Your task to perform on an android device: create a new album in the google photos Image 0: 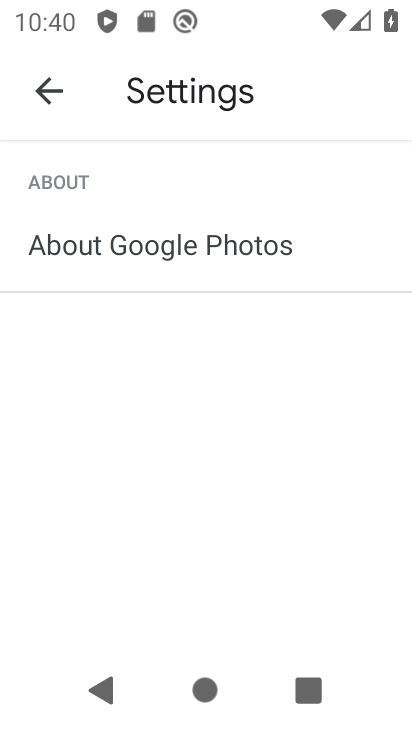
Step 0: press back button
Your task to perform on an android device: create a new album in the google photos Image 1: 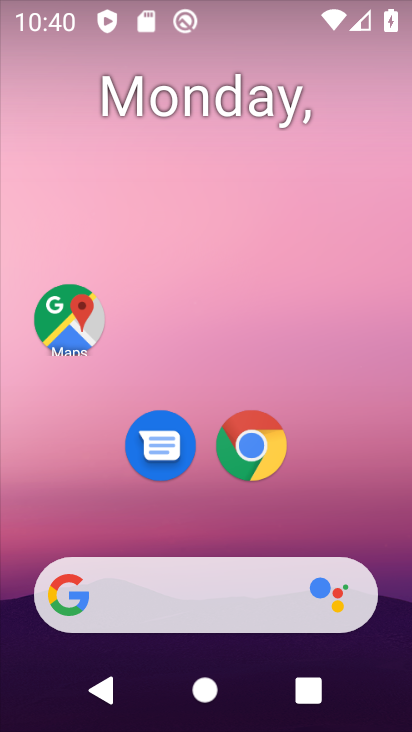
Step 1: drag from (174, 517) to (320, 73)
Your task to perform on an android device: create a new album in the google photos Image 2: 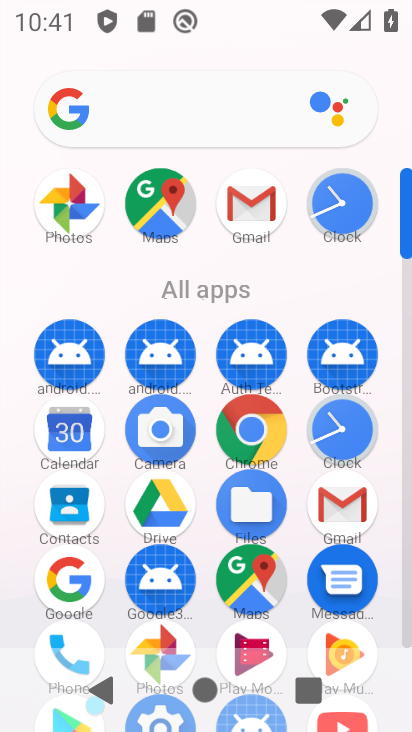
Step 2: click (165, 642)
Your task to perform on an android device: create a new album in the google photos Image 3: 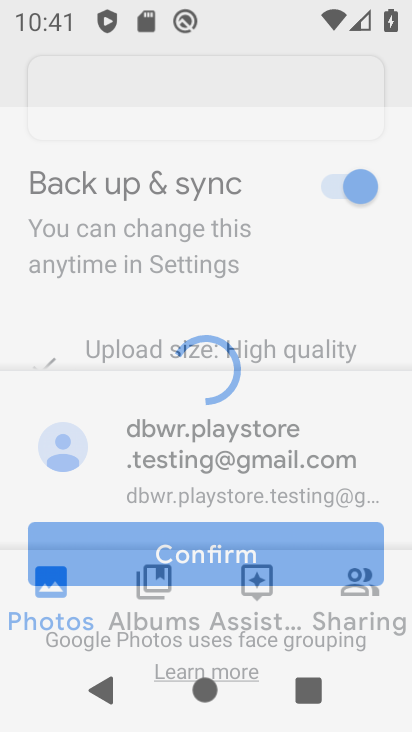
Step 3: click (163, 596)
Your task to perform on an android device: create a new album in the google photos Image 4: 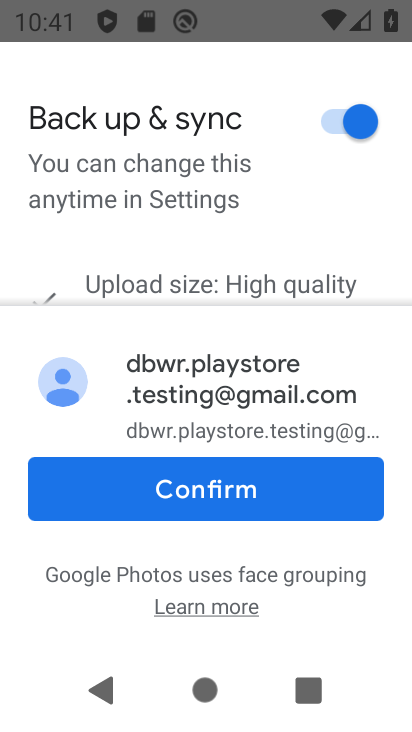
Step 4: click (191, 488)
Your task to perform on an android device: create a new album in the google photos Image 5: 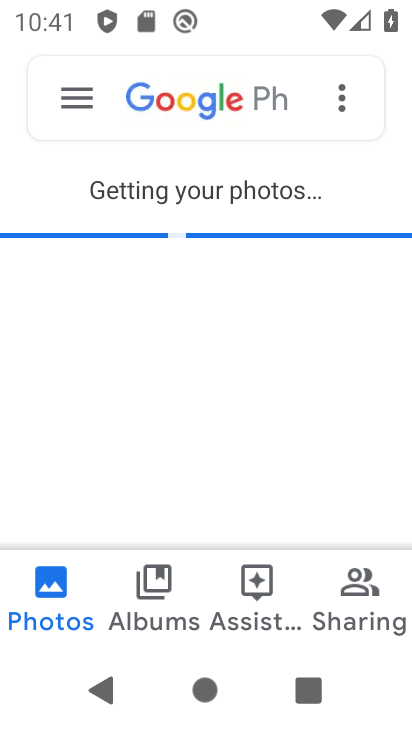
Step 5: click (341, 97)
Your task to perform on an android device: create a new album in the google photos Image 6: 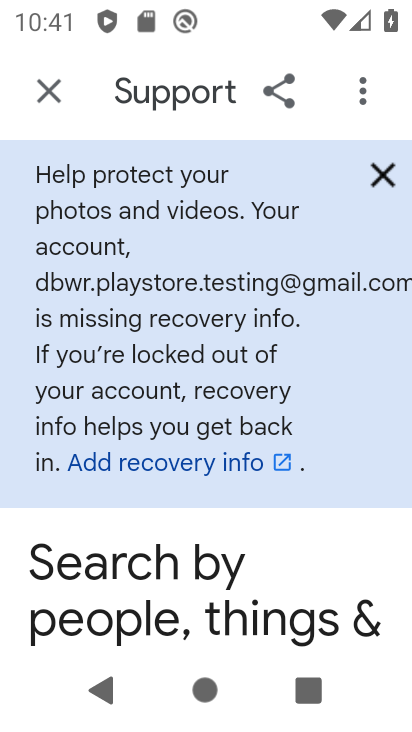
Step 6: press back button
Your task to perform on an android device: create a new album in the google photos Image 7: 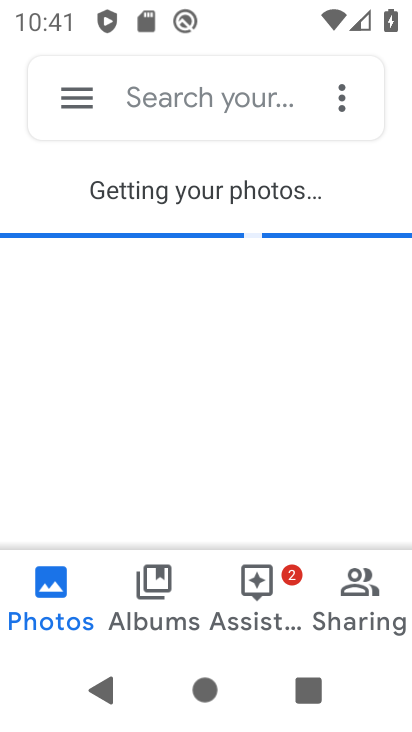
Step 7: click (338, 85)
Your task to perform on an android device: create a new album in the google photos Image 8: 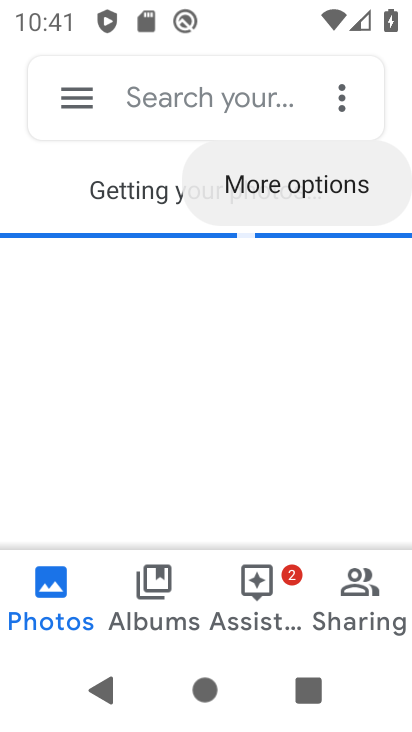
Step 8: click (339, 85)
Your task to perform on an android device: create a new album in the google photos Image 9: 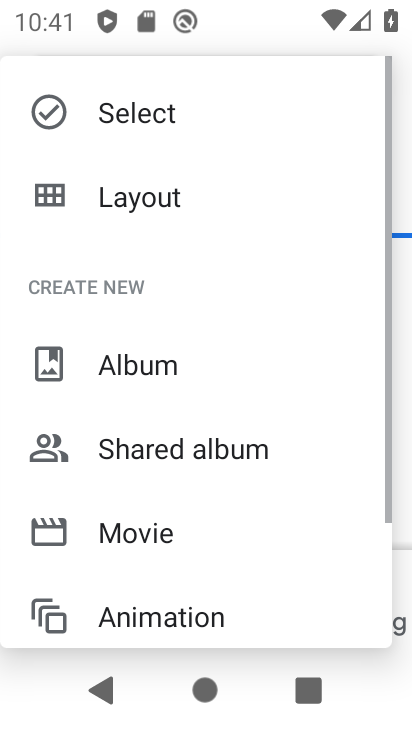
Step 9: click (108, 372)
Your task to perform on an android device: create a new album in the google photos Image 10: 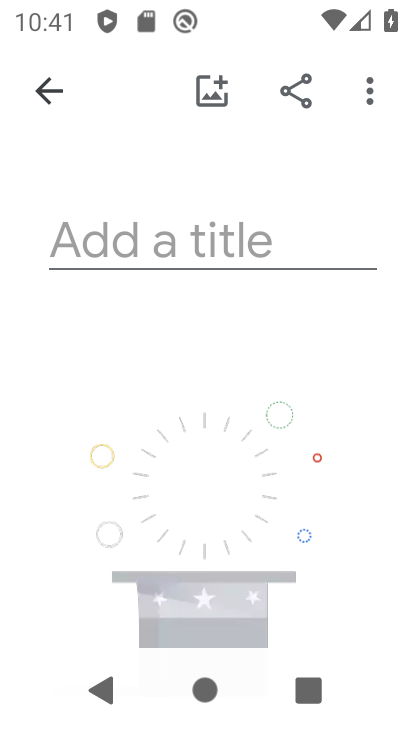
Step 10: click (129, 239)
Your task to perform on an android device: create a new album in the google photos Image 11: 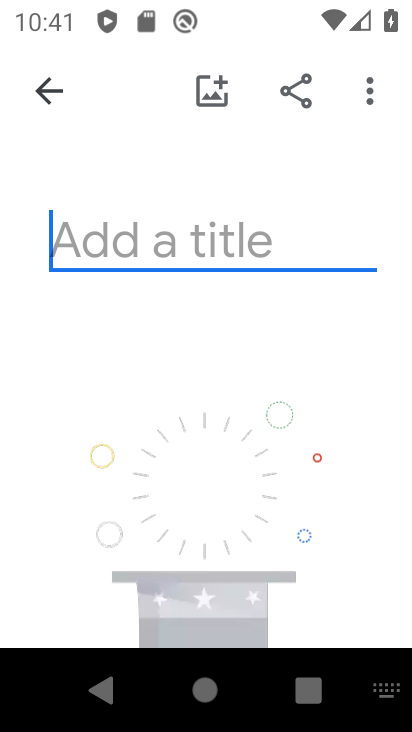
Step 11: type "gygyg"
Your task to perform on an android device: create a new album in the google photos Image 12: 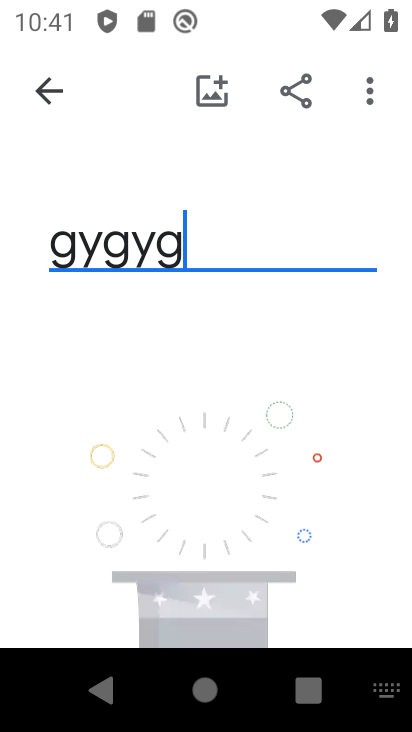
Step 12: drag from (246, 538) to (300, 56)
Your task to perform on an android device: create a new album in the google photos Image 13: 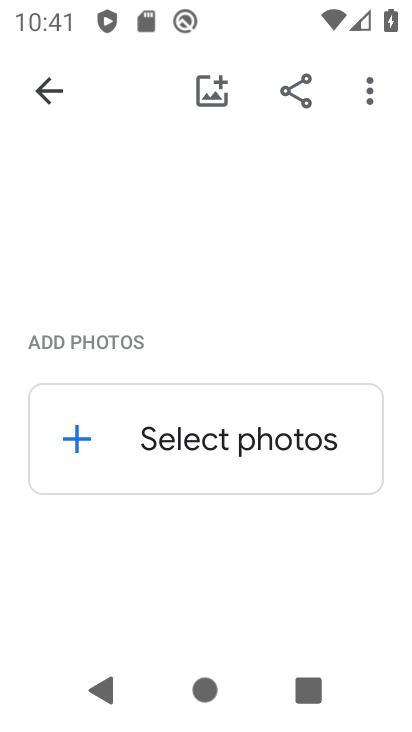
Step 13: click (158, 441)
Your task to perform on an android device: create a new album in the google photos Image 14: 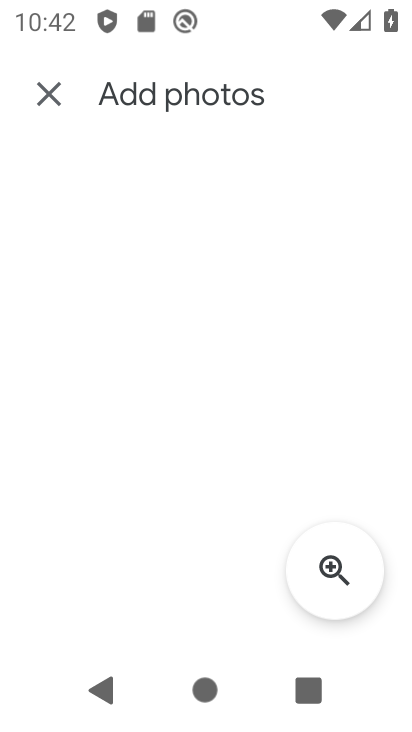
Step 14: drag from (146, 538) to (247, 81)
Your task to perform on an android device: create a new album in the google photos Image 15: 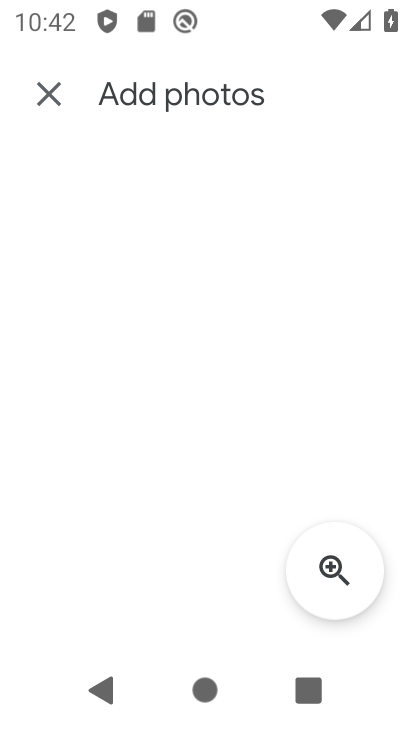
Step 15: drag from (187, 572) to (221, 140)
Your task to perform on an android device: create a new album in the google photos Image 16: 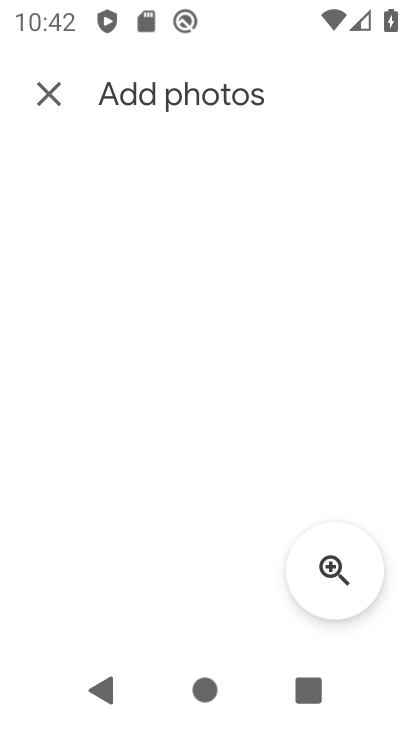
Step 16: drag from (251, 164) to (259, 126)
Your task to perform on an android device: create a new album in the google photos Image 17: 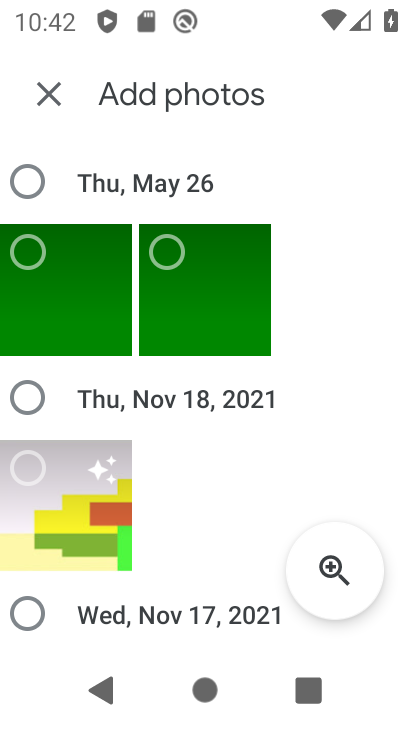
Step 17: click (46, 175)
Your task to perform on an android device: create a new album in the google photos Image 18: 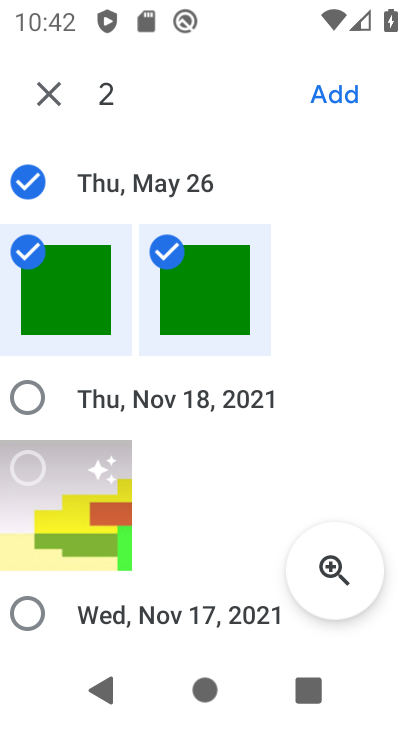
Step 18: click (27, 401)
Your task to perform on an android device: create a new album in the google photos Image 19: 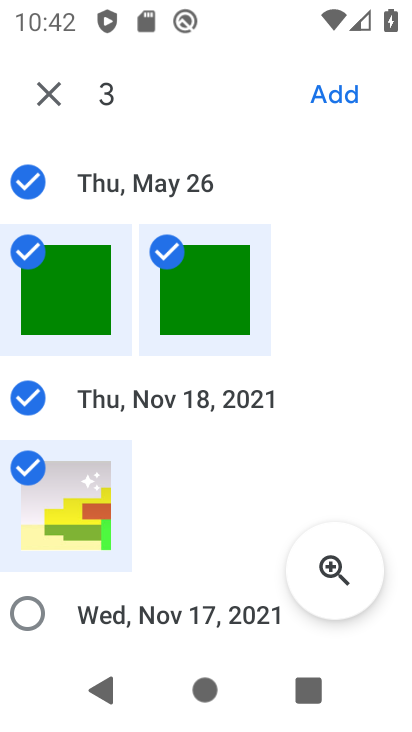
Step 19: click (341, 100)
Your task to perform on an android device: create a new album in the google photos Image 20: 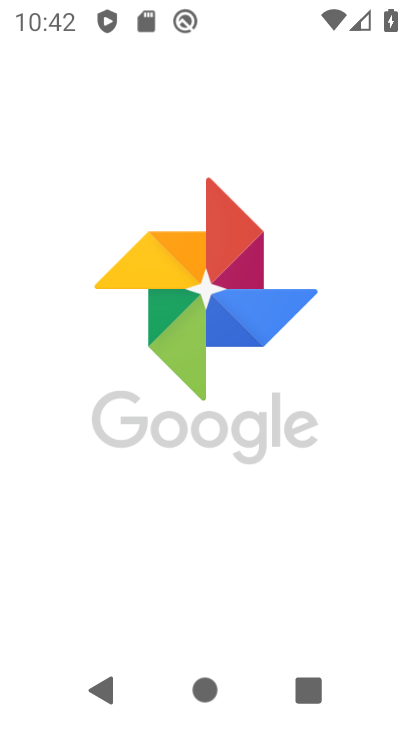
Step 20: task complete